Your task to perform on an android device: Open maps Image 0: 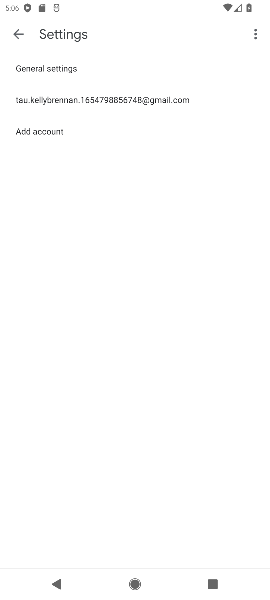
Step 0: press home button
Your task to perform on an android device: Open maps Image 1: 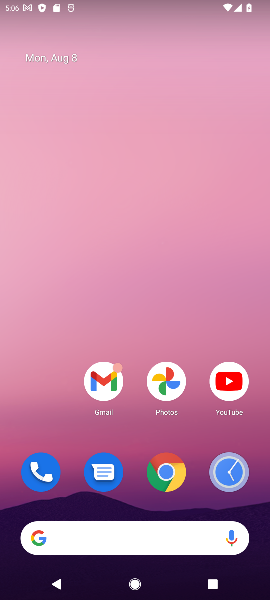
Step 1: drag from (141, 326) to (98, 8)
Your task to perform on an android device: Open maps Image 2: 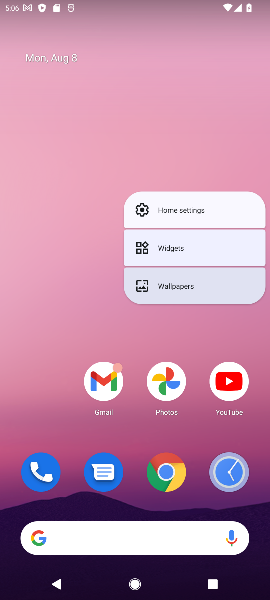
Step 2: drag from (54, 417) to (183, 28)
Your task to perform on an android device: Open maps Image 3: 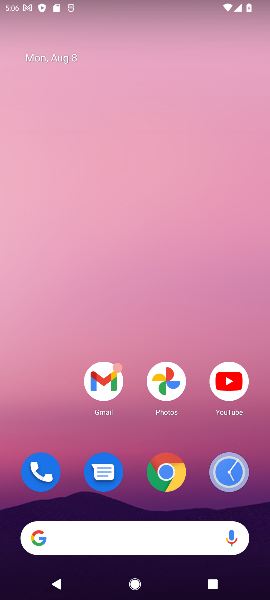
Step 3: press home button
Your task to perform on an android device: Open maps Image 4: 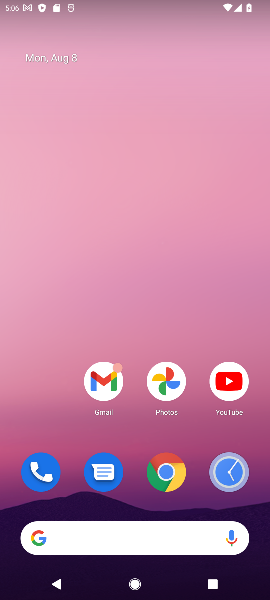
Step 4: press home button
Your task to perform on an android device: Open maps Image 5: 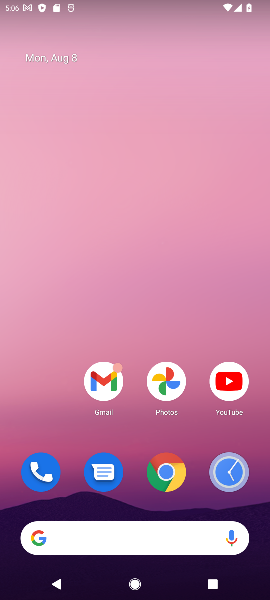
Step 5: drag from (155, 302) to (161, 7)
Your task to perform on an android device: Open maps Image 6: 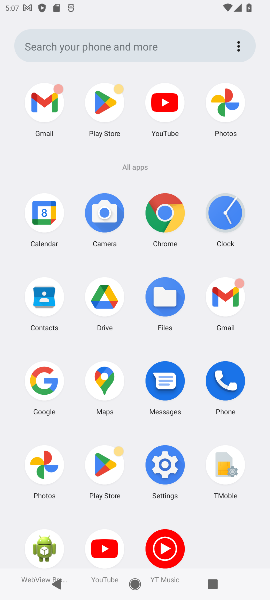
Step 6: click (102, 377)
Your task to perform on an android device: Open maps Image 7: 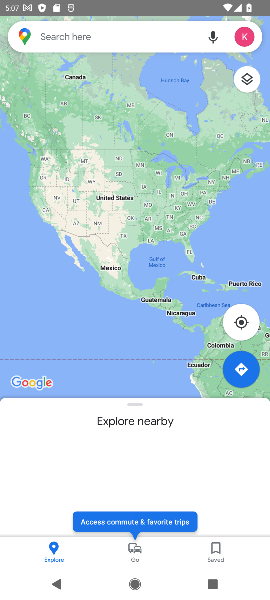
Step 7: task complete